Your task to perform on an android device: turn off picture-in-picture Image 0: 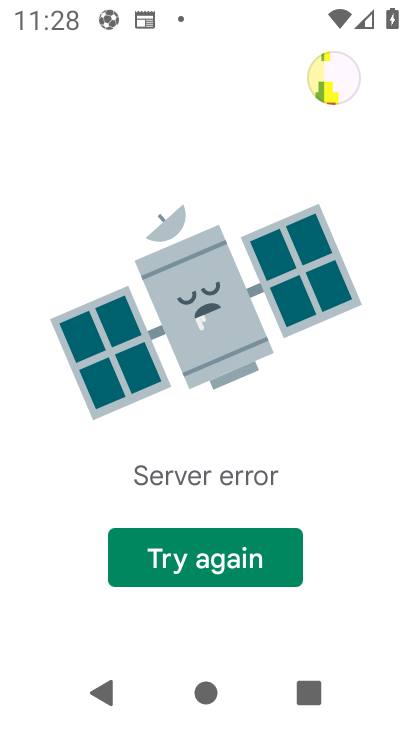
Step 0: press home button
Your task to perform on an android device: turn off picture-in-picture Image 1: 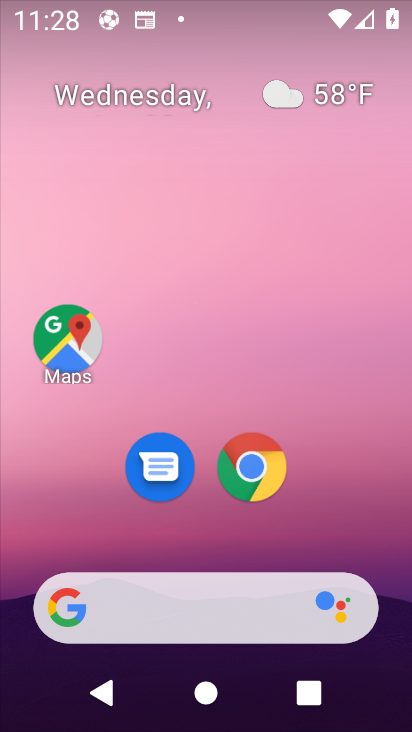
Step 1: click (270, 460)
Your task to perform on an android device: turn off picture-in-picture Image 2: 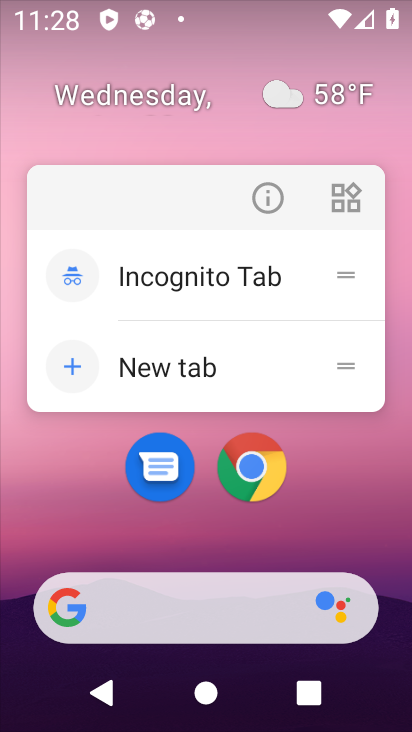
Step 2: click (279, 194)
Your task to perform on an android device: turn off picture-in-picture Image 3: 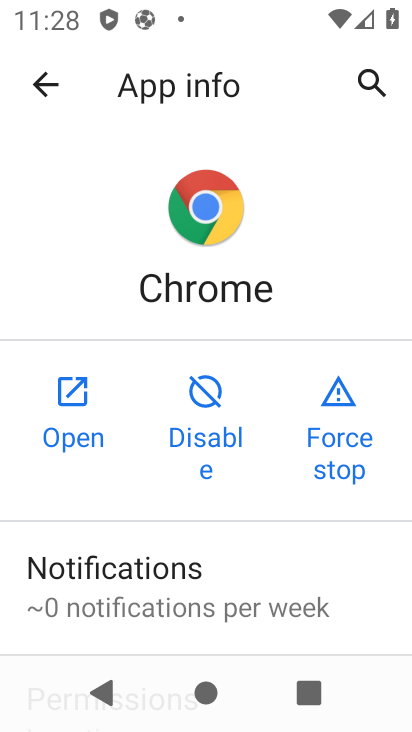
Step 3: drag from (213, 580) to (215, 0)
Your task to perform on an android device: turn off picture-in-picture Image 4: 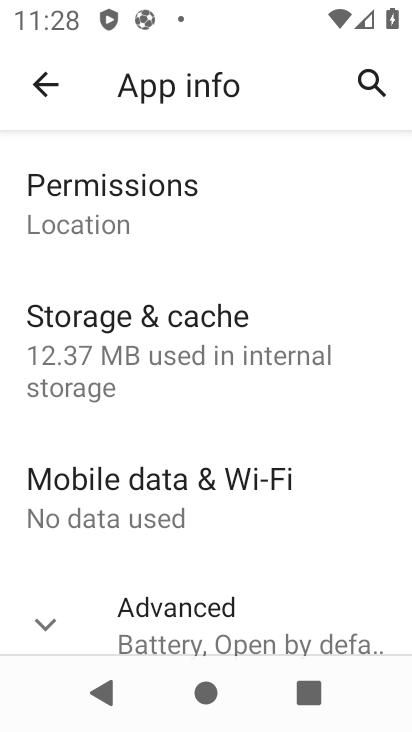
Step 4: click (247, 637)
Your task to perform on an android device: turn off picture-in-picture Image 5: 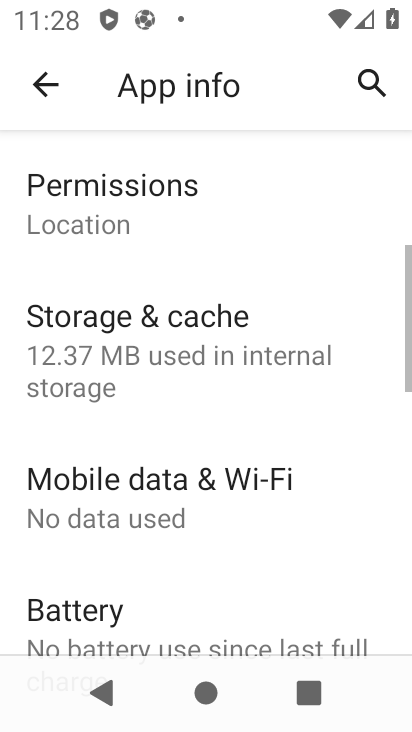
Step 5: drag from (247, 637) to (224, 21)
Your task to perform on an android device: turn off picture-in-picture Image 6: 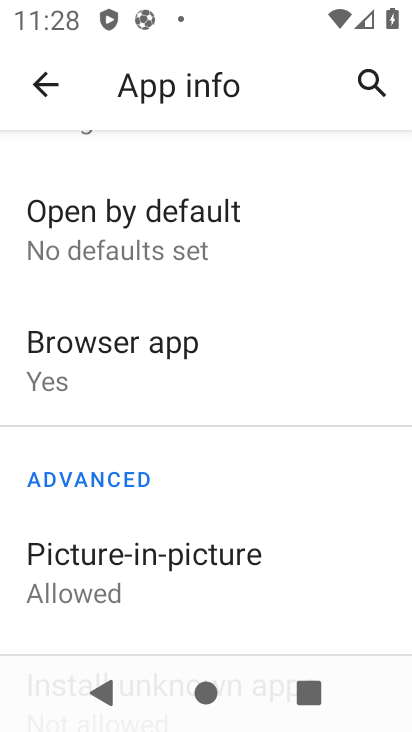
Step 6: drag from (201, 645) to (174, 262)
Your task to perform on an android device: turn off picture-in-picture Image 7: 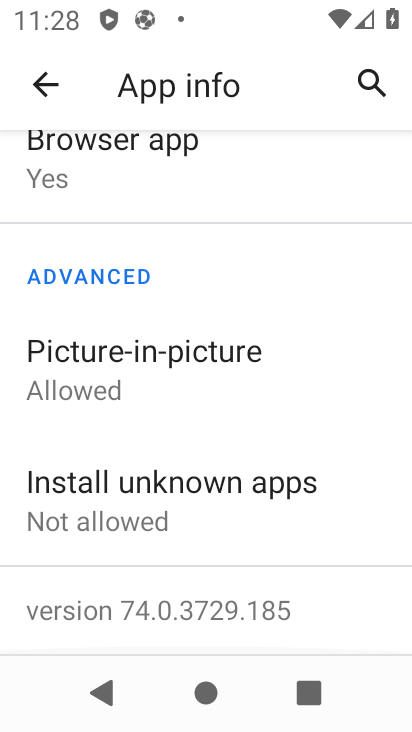
Step 7: click (70, 369)
Your task to perform on an android device: turn off picture-in-picture Image 8: 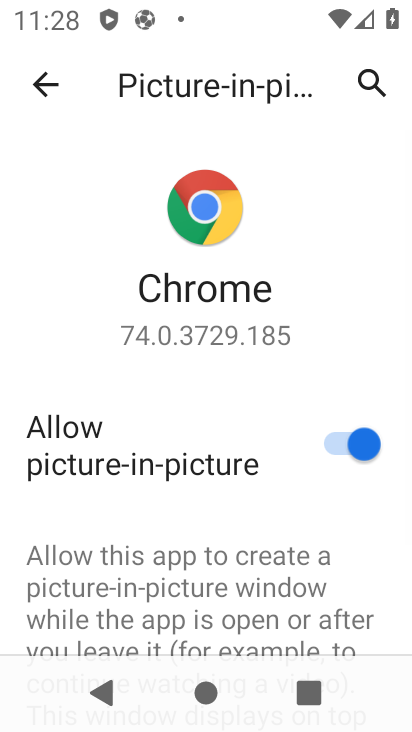
Step 8: click (376, 460)
Your task to perform on an android device: turn off picture-in-picture Image 9: 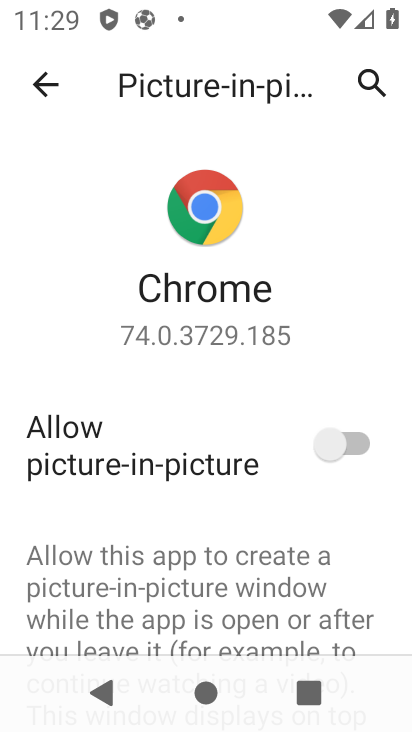
Step 9: task complete